Your task to perform on an android device: change timer sound Image 0: 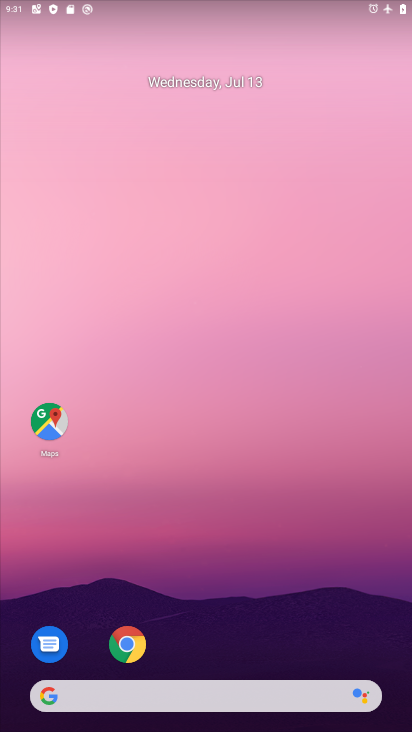
Step 0: drag from (226, 719) to (186, 37)
Your task to perform on an android device: change timer sound Image 1: 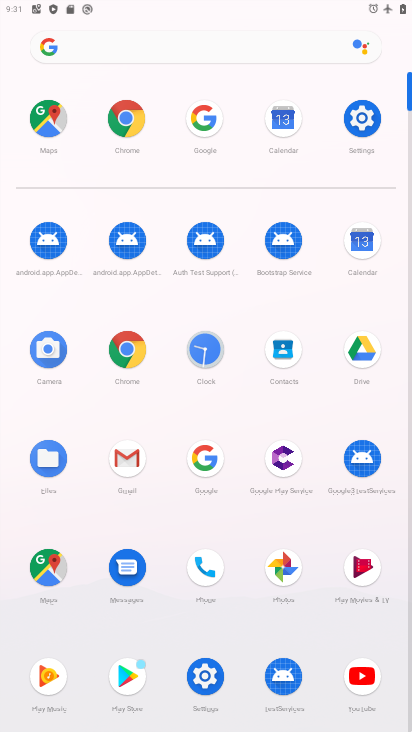
Step 1: click (204, 348)
Your task to perform on an android device: change timer sound Image 2: 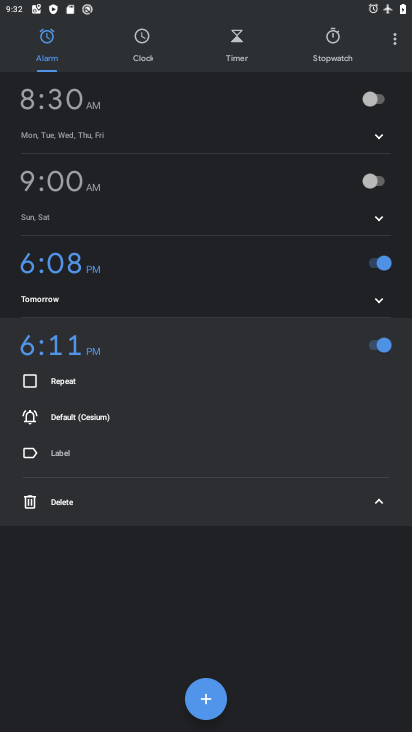
Step 2: click (397, 44)
Your task to perform on an android device: change timer sound Image 3: 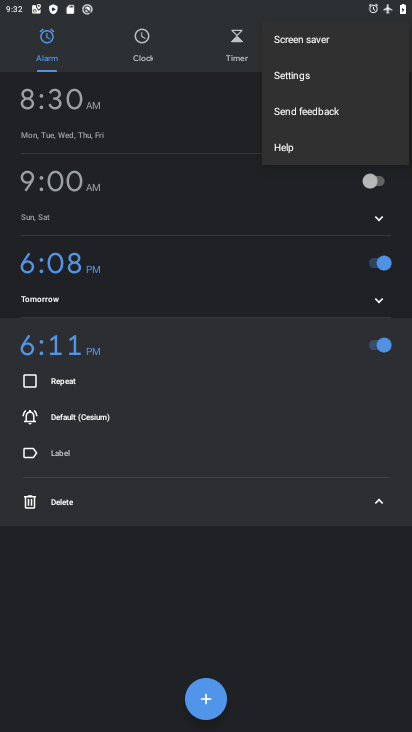
Step 3: click (293, 71)
Your task to perform on an android device: change timer sound Image 4: 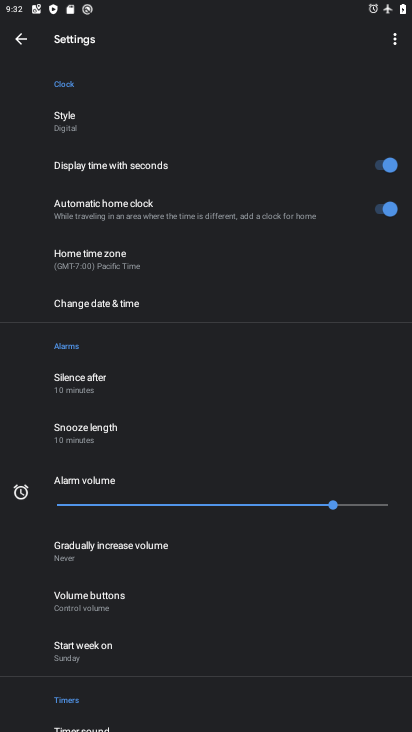
Step 4: click (108, 719)
Your task to perform on an android device: change timer sound Image 5: 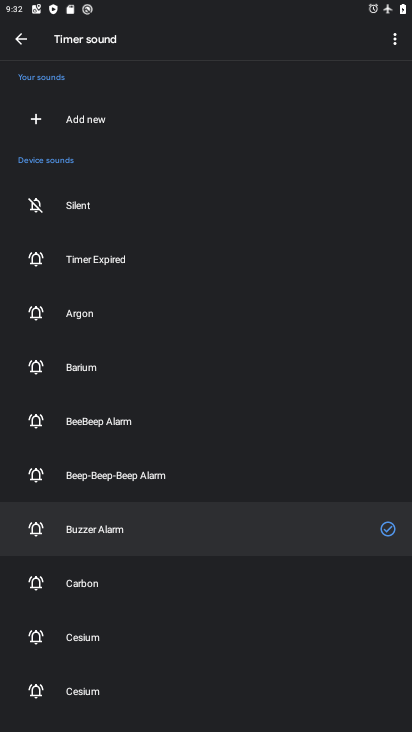
Step 5: click (77, 687)
Your task to perform on an android device: change timer sound Image 6: 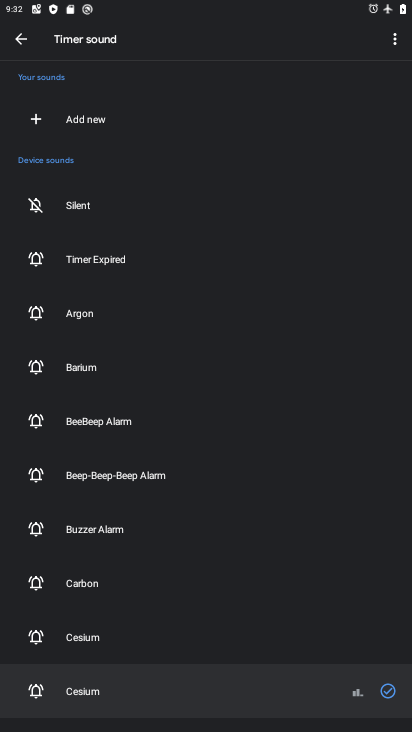
Step 6: task complete